Your task to perform on an android device: Go to CNN.com Image 0: 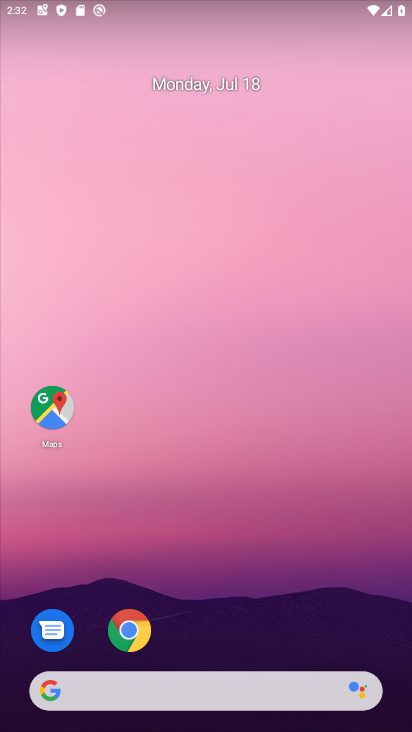
Step 0: click (132, 629)
Your task to perform on an android device: Go to CNN.com Image 1: 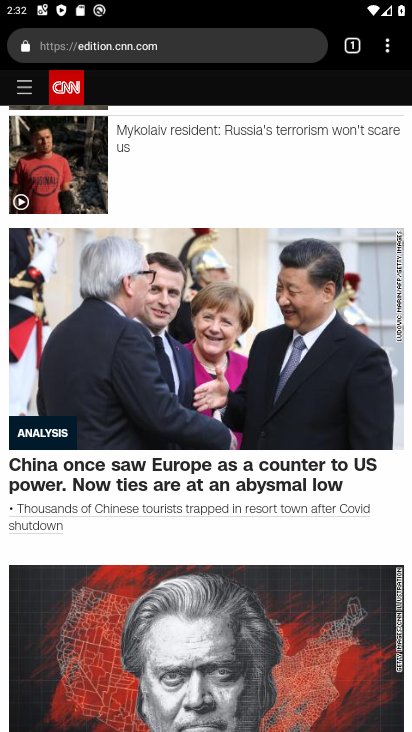
Step 1: task complete